Your task to perform on an android device: turn on wifi Image 0: 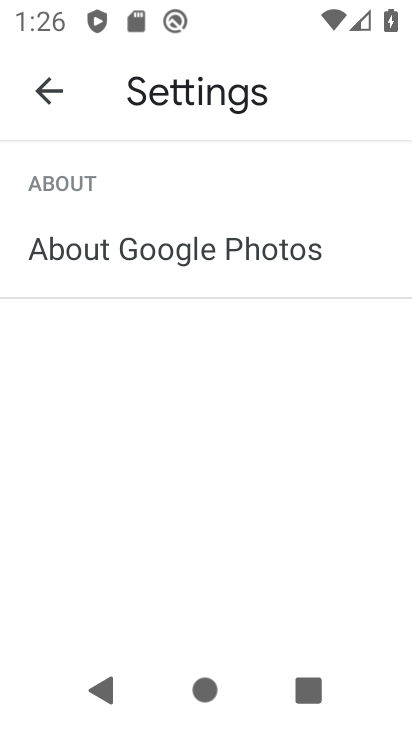
Step 0: press home button
Your task to perform on an android device: turn on wifi Image 1: 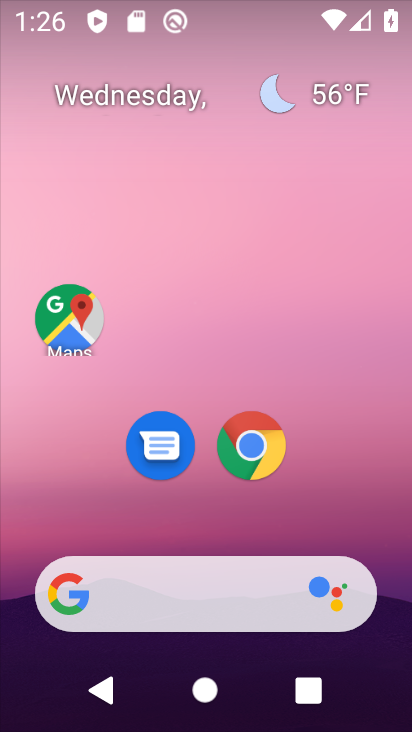
Step 1: drag from (223, 555) to (175, 26)
Your task to perform on an android device: turn on wifi Image 2: 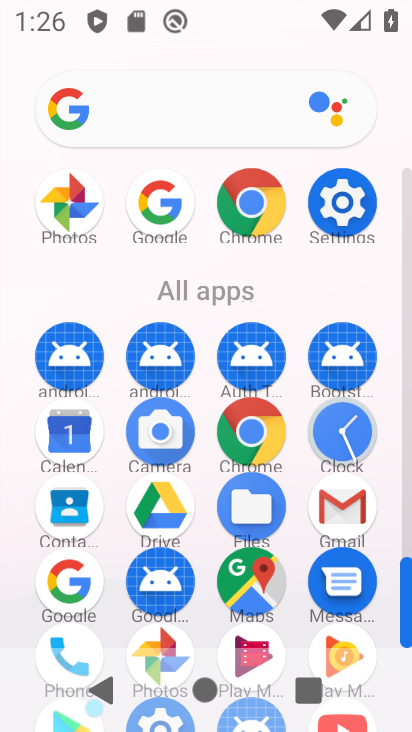
Step 2: click (342, 190)
Your task to perform on an android device: turn on wifi Image 3: 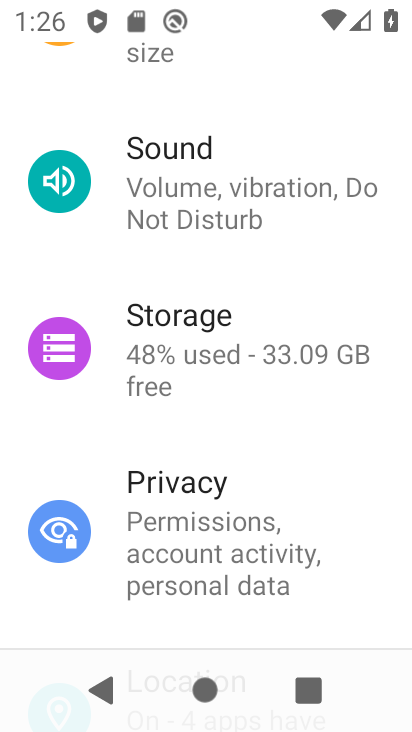
Step 3: drag from (341, 191) to (303, 664)
Your task to perform on an android device: turn on wifi Image 4: 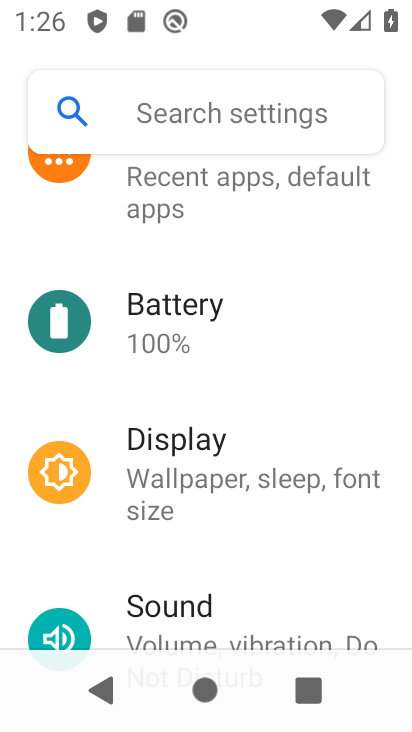
Step 4: drag from (197, 238) to (143, 653)
Your task to perform on an android device: turn on wifi Image 5: 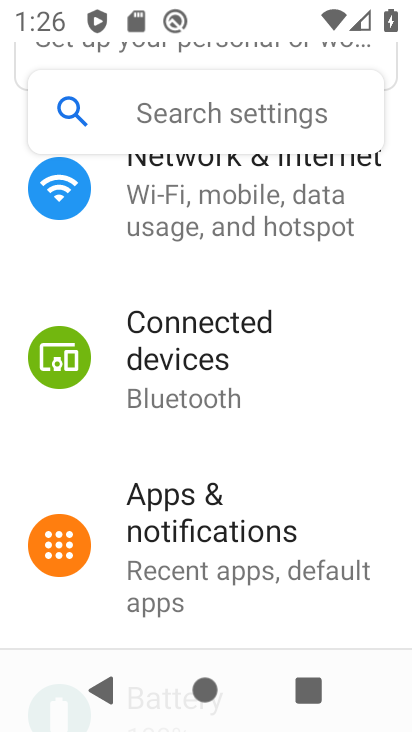
Step 5: click (164, 216)
Your task to perform on an android device: turn on wifi Image 6: 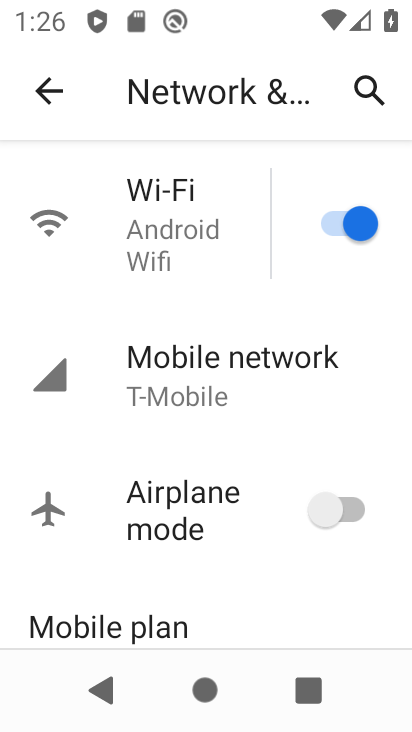
Step 6: click (215, 207)
Your task to perform on an android device: turn on wifi Image 7: 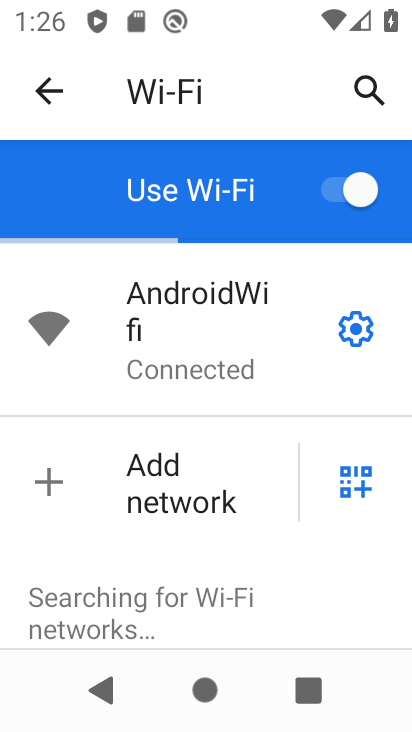
Step 7: task complete